Your task to perform on an android device: Go to notification settings Image 0: 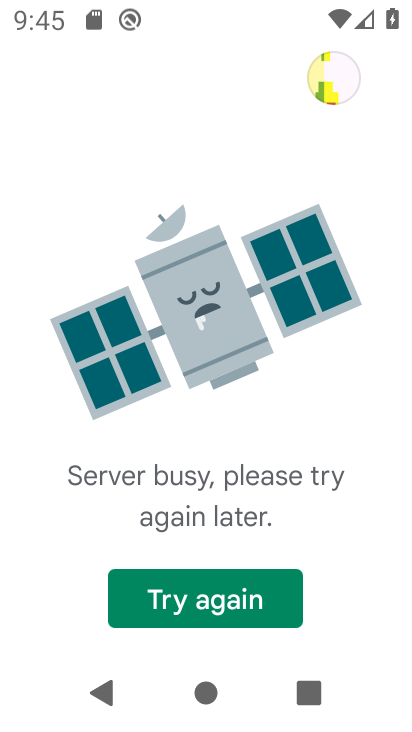
Step 0: press home button
Your task to perform on an android device: Go to notification settings Image 1: 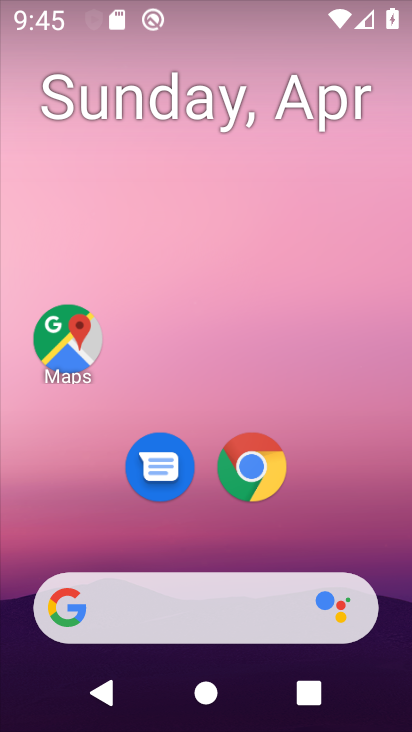
Step 1: drag from (369, 480) to (194, 53)
Your task to perform on an android device: Go to notification settings Image 2: 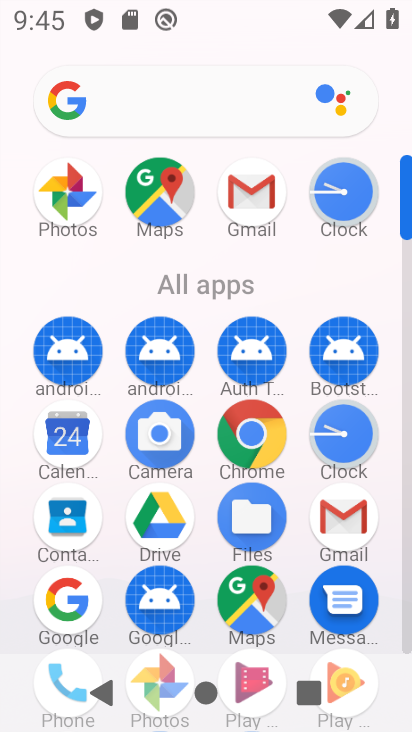
Step 2: drag from (168, 155) to (171, 14)
Your task to perform on an android device: Go to notification settings Image 3: 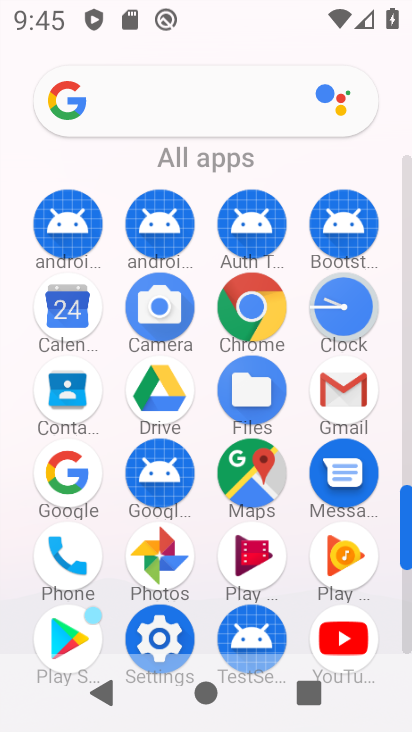
Step 3: drag from (190, 500) to (181, 242)
Your task to perform on an android device: Go to notification settings Image 4: 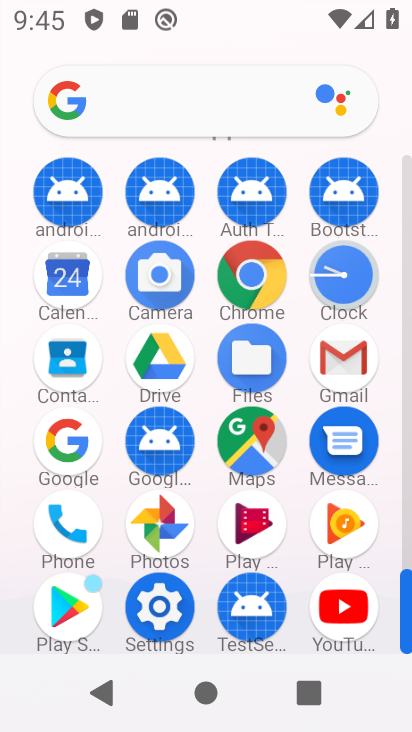
Step 4: click (148, 608)
Your task to perform on an android device: Go to notification settings Image 5: 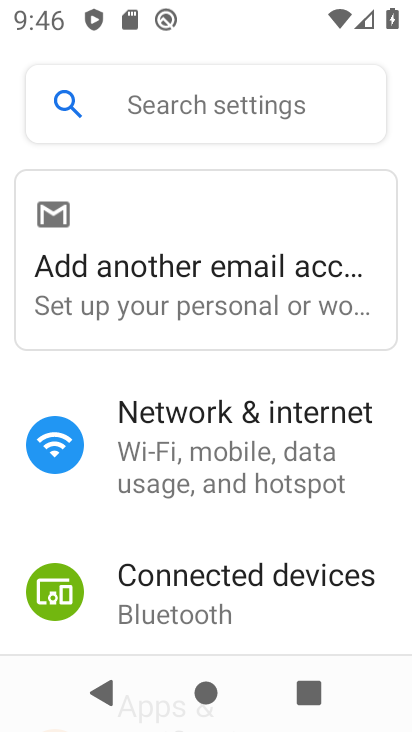
Step 5: drag from (263, 639) to (187, 215)
Your task to perform on an android device: Go to notification settings Image 6: 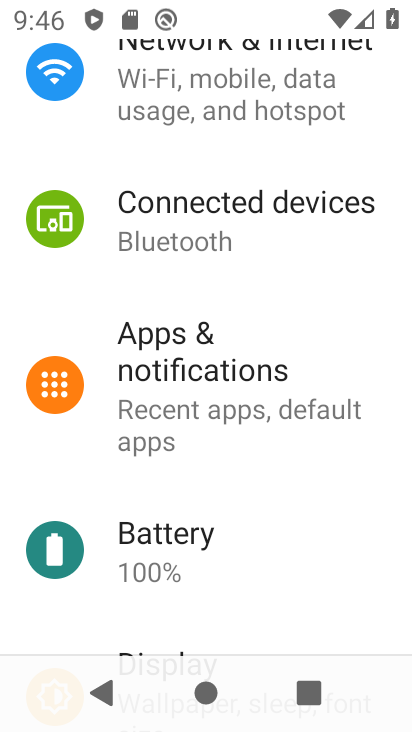
Step 6: drag from (202, 713) to (171, 270)
Your task to perform on an android device: Go to notification settings Image 7: 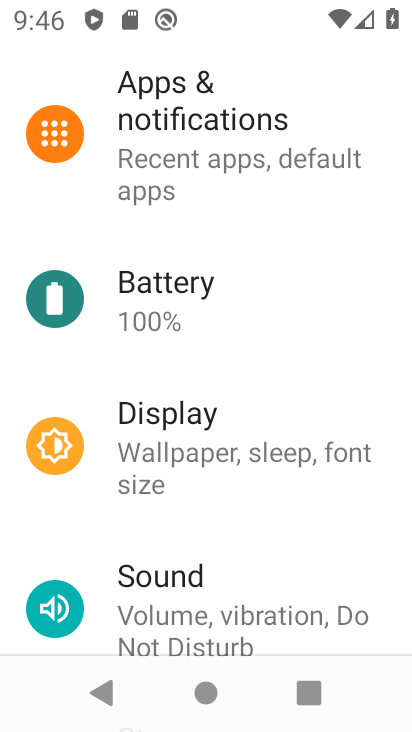
Step 7: click (200, 89)
Your task to perform on an android device: Go to notification settings Image 8: 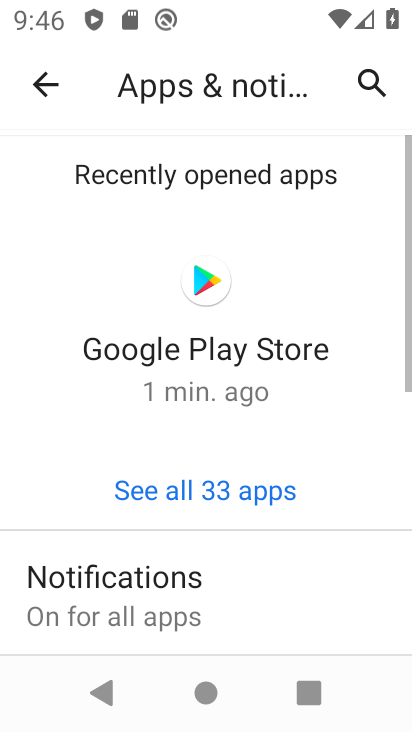
Step 8: click (193, 603)
Your task to perform on an android device: Go to notification settings Image 9: 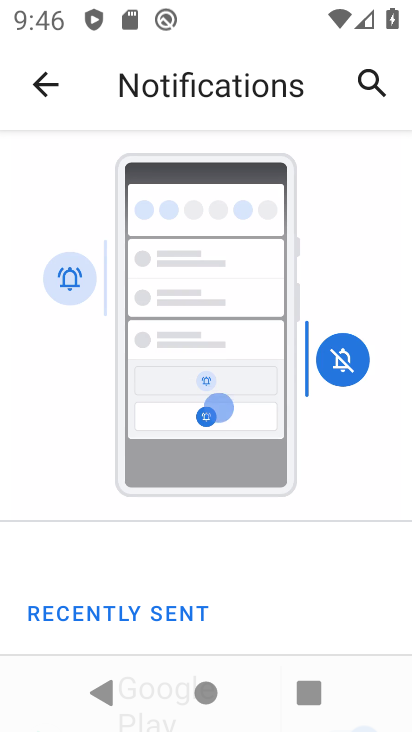
Step 9: task complete